Your task to perform on an android device: empty trash in google photos Image 0: 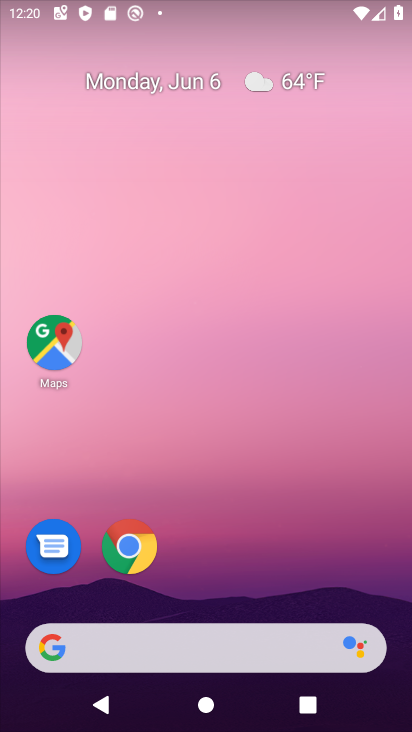
Step 0: drag from (218, 585) to (255, 240)
Your task to perform on an android device: empty trash in google photos Image 1: 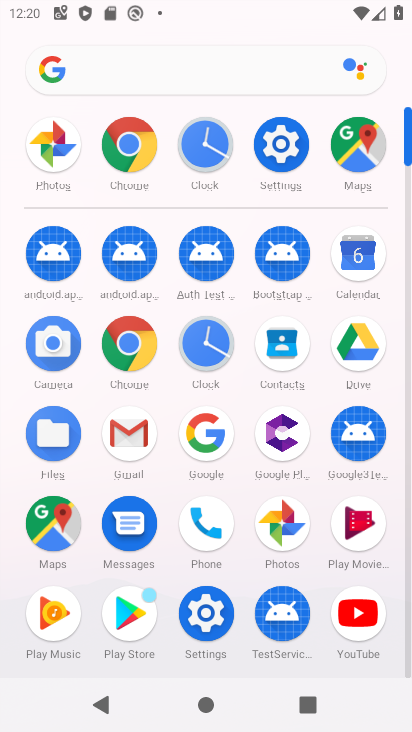
Step 1: click (277, 529)
Your task to perform on an android device: empty trash in google photos Image 2: 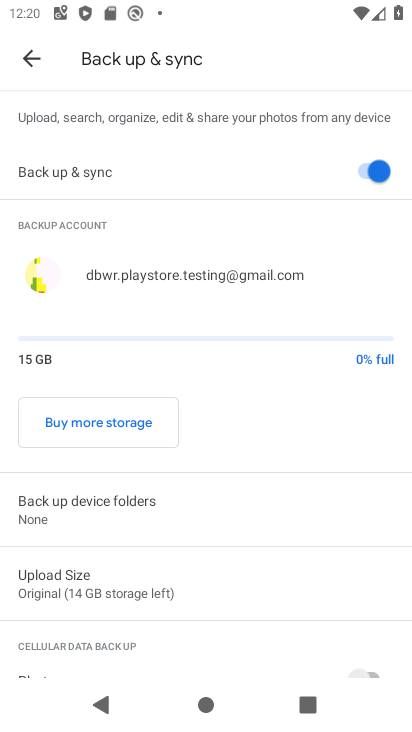
Step 2: click (27, 61)
Your task to perform on an android device: empty trash in google photos Image 3: 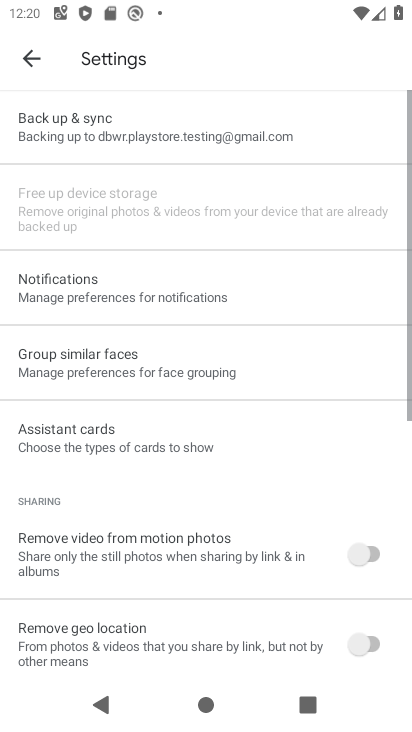
Step 3: click (27, 61)
Your task to perform on an android device: empty trash in google photos Image 4: 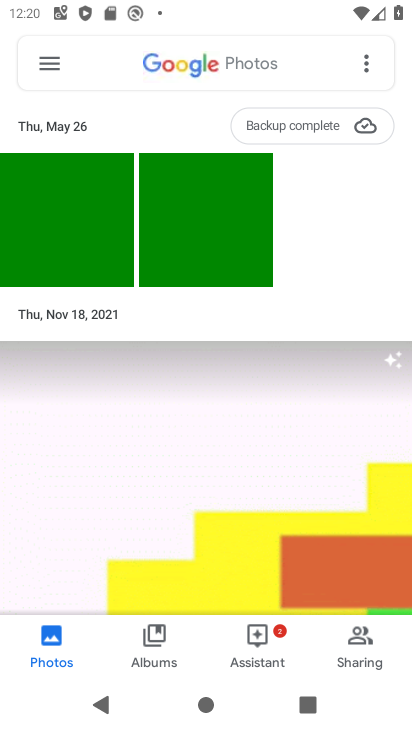
Step 4: click (47, 56)
Your task to perform on an android device: empty trash in google photos Image 5: 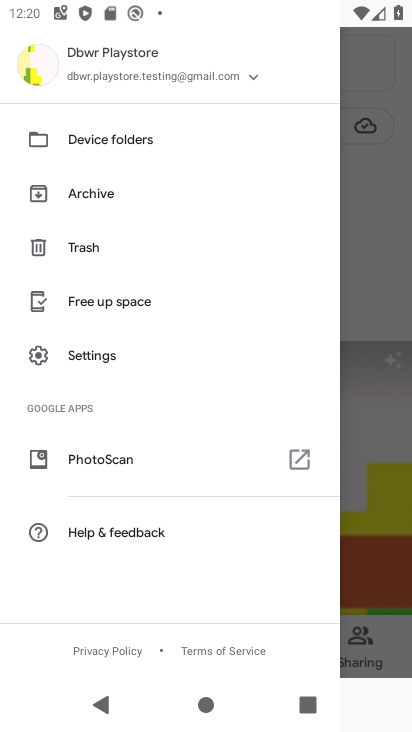
Step 5: click (105, 244)
Your task to perform on an android device: empty trash in google photos Image 6: 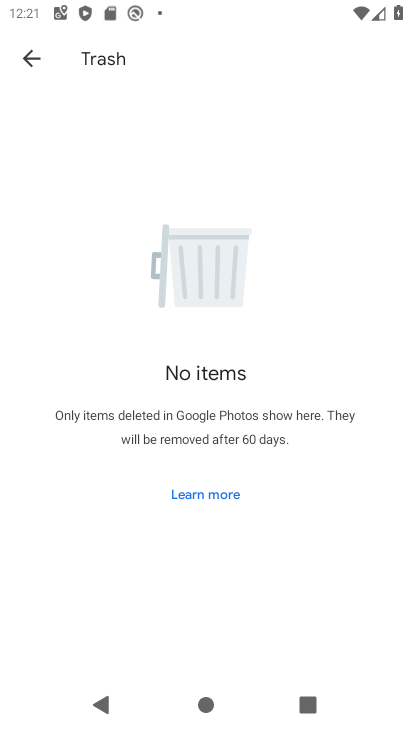
Step 6: task complete